Your task to perform on an android device: Open Youtube and go to "Your channel" Image 0: 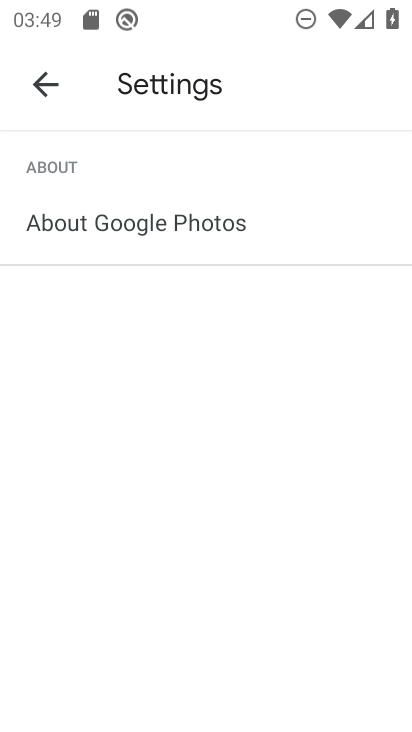
Step 0: press home button
Your task to perform on an android device: Open Youtube and go to "Your channel" Image 1: 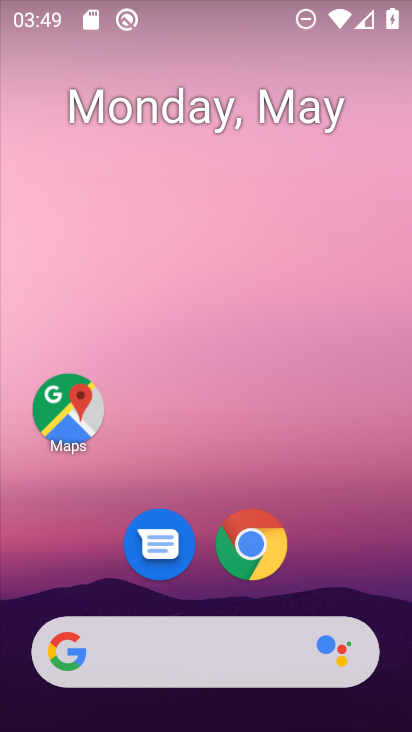
Step 1: drag from (370, 589) to (356, 228)
Your task to perform on an android device: Open Youtube and go to "Your channel" Image 2: 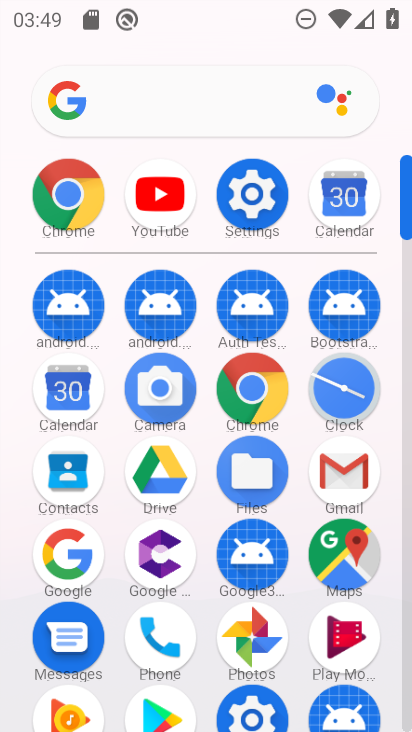
Step 2: click (172, 219)
Your task to perform on an android device: Open Youtube and go to "Your channel" Image 3: 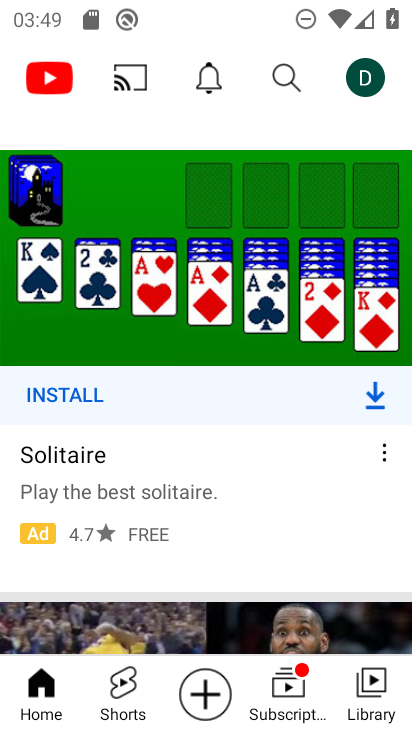
Step 3: click (371, 91)
Your task to perform on an android device: Open Youtube and go to "Your channel" Image 4: 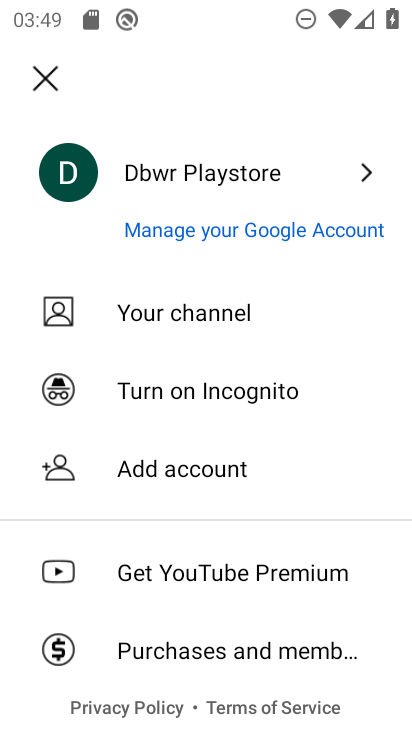
Step 4: click (232, 326)
Your task to perform on an android device: Open Youtube and go to "Your channel" Image 5: 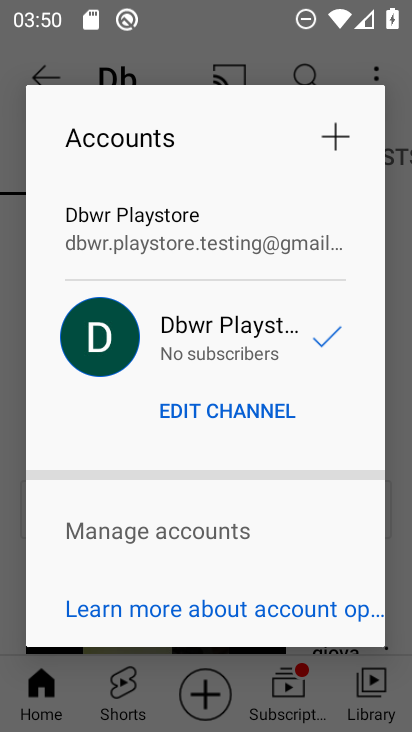
Step 5: task complete